Your task to perform on an android device: turn on data saver in the chrome app Image 0: 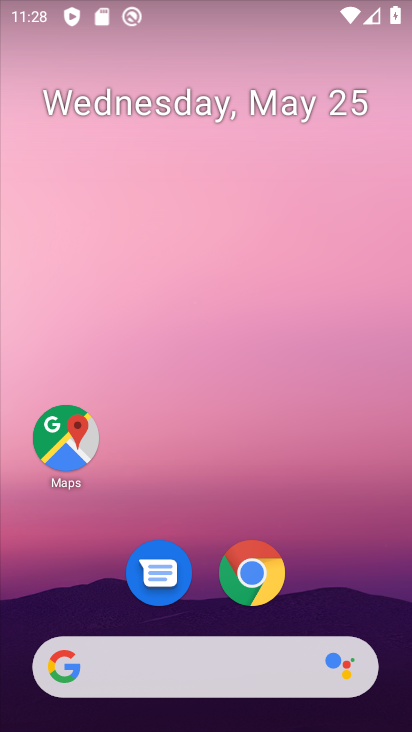
Step 0: click (250, 594)
Your task to perform on an android device: turn on data saver in the chrome app Image 1: 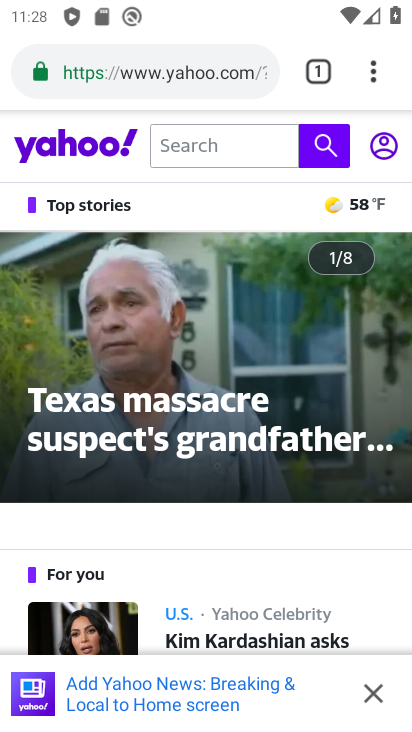
Step 1: drag from (365, 57) to (121, 571)
Your task to perform on an android device: turn on data saver in the chrome app Image 2: 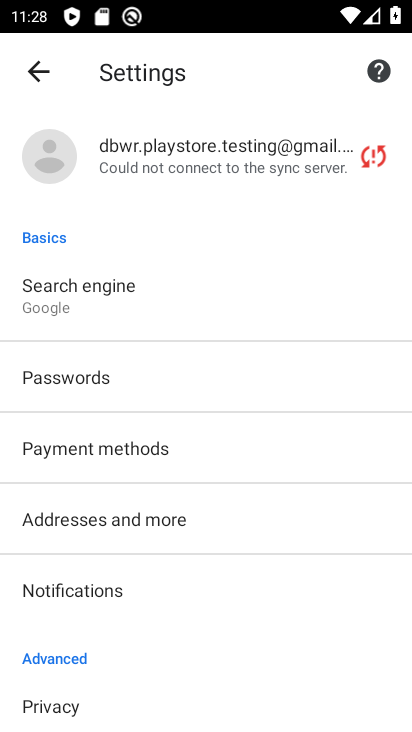
Step 2: drag from (149, 595) to (233, 126)
Your task to perform on an android device: turn on data saver in the chrome app Image 3: 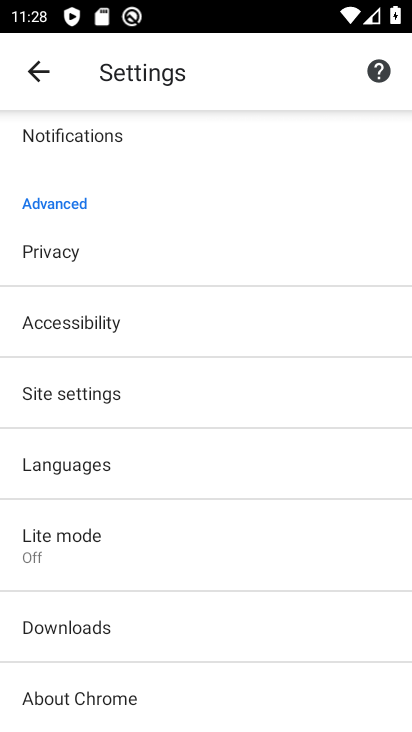
Step 3: click (125, 531)
Your task to perform on an android device: turn on data saver in the chrome app Image 4: 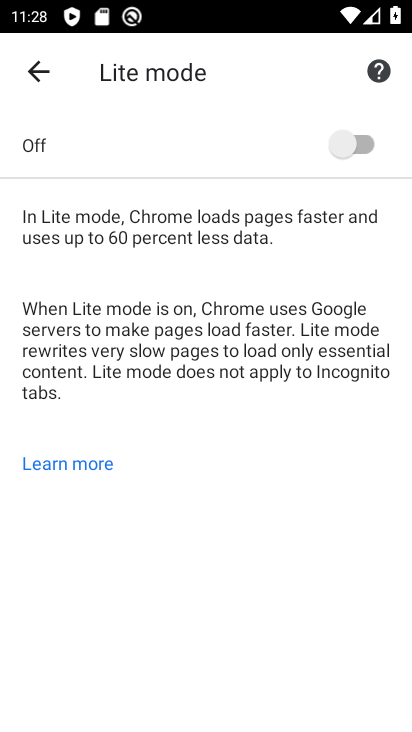
Step 4: click (347, 138)
Your task to perform on an android device: turn on data saver in the chrome app Image 5: 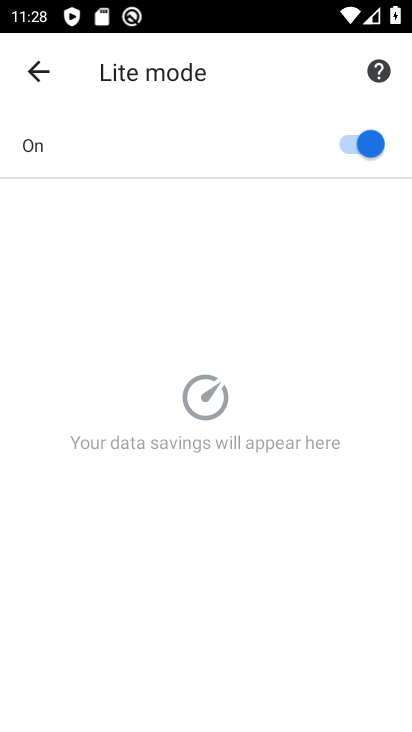
Step 5: task complete